Your task to perform on an android device: Open Google Image 0: 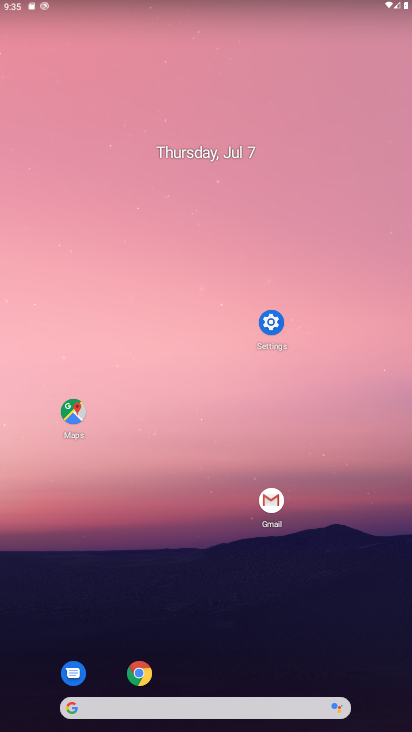
Step 0: drag from (380, 684) to (303, 114)
Your task to perform on an android device: Open Google Image 1: 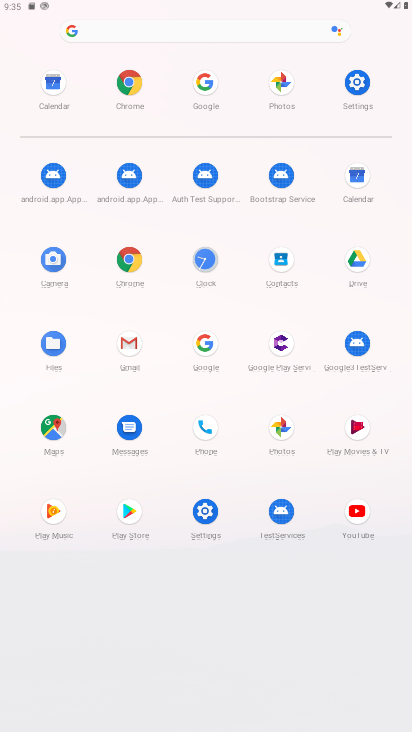
Step 1: click (208, 344)
Your task to perform on an android device: Open Google Image 2: 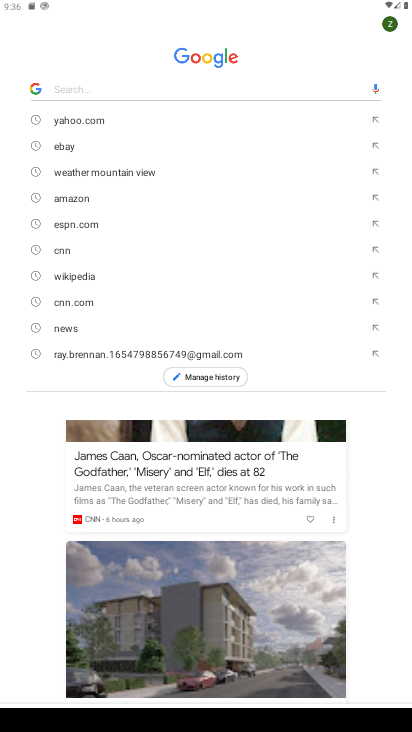
Step 2: click (374, 421)
Your task to perform on an android device: Open Google Image 3: 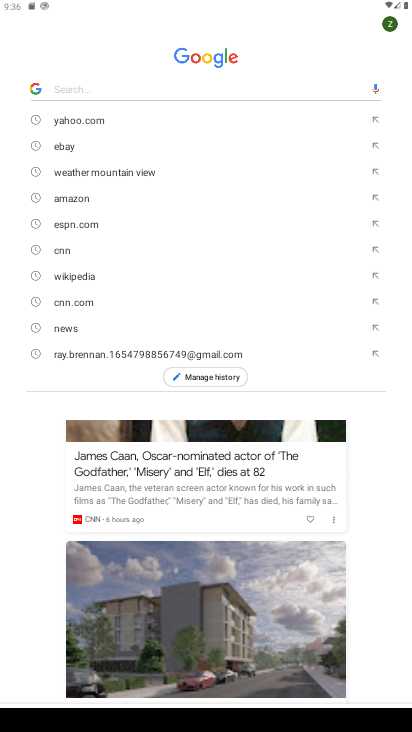
Step 3: task complete